Your task to perform on an android device: turn notification dots off Image 0: 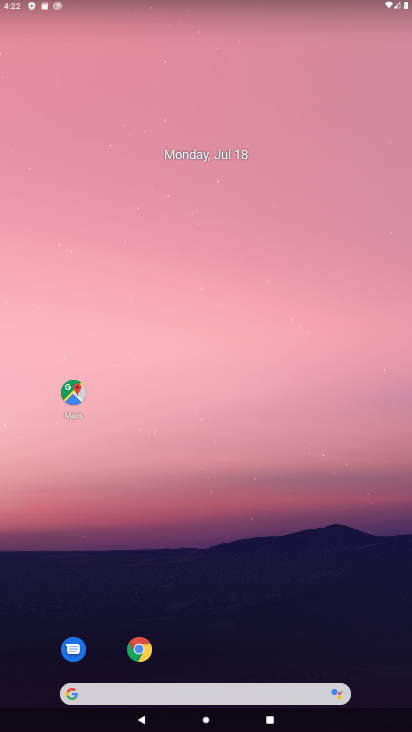
Step 0: drag from (231, 647) to (210, 188)
Your task to perform on an android device: turn notification dots off Image 1: 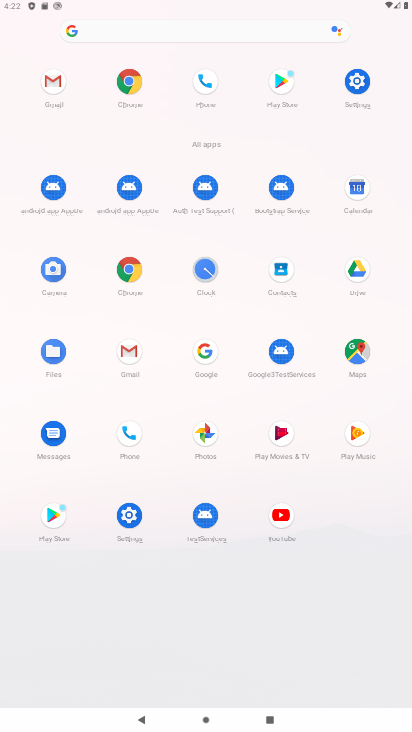
Step 1: click (354, 79)
Your task to perform on an android device: turn notification dots off Image 2: 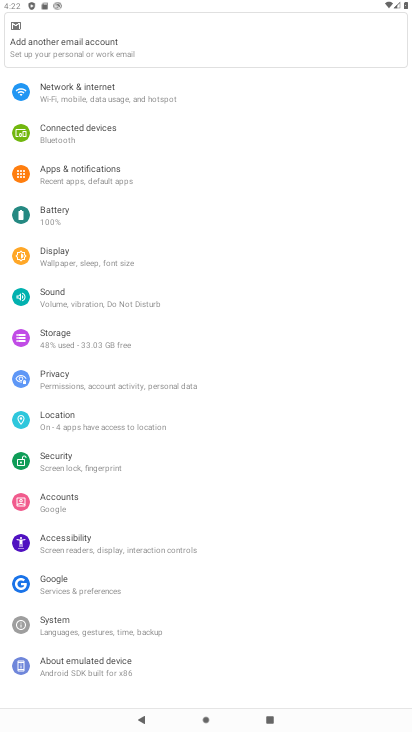
Step 2: click (100, 181)
Your task to perform on an android device: turn notification dots off Image 3: 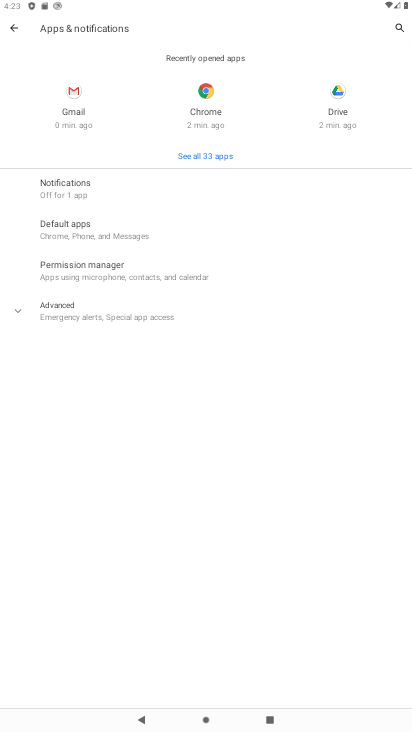
Step 3: click (91, 188)
Your task to perform on an android device: turn notification dots off Image 4: 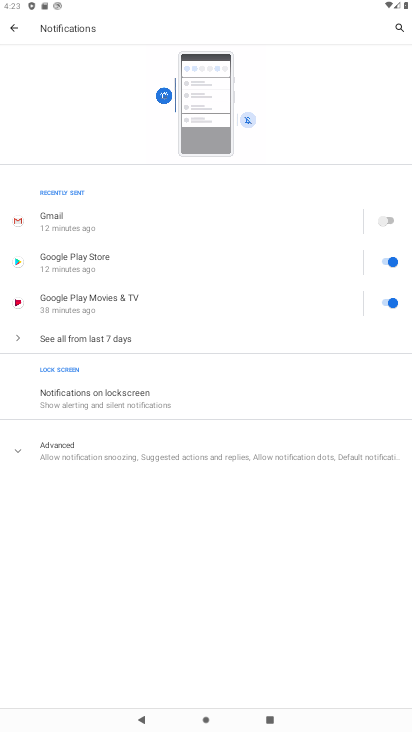
Step 4: click (114, 459)
Your task to perform on an android device: turn notification dots off Image 5: 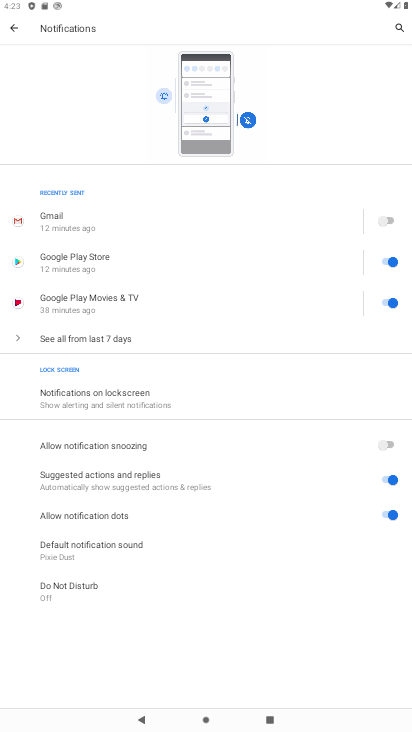
Step 5: click (378, 515)
Your task to perform on an android device: turn notification dots off Image 6: 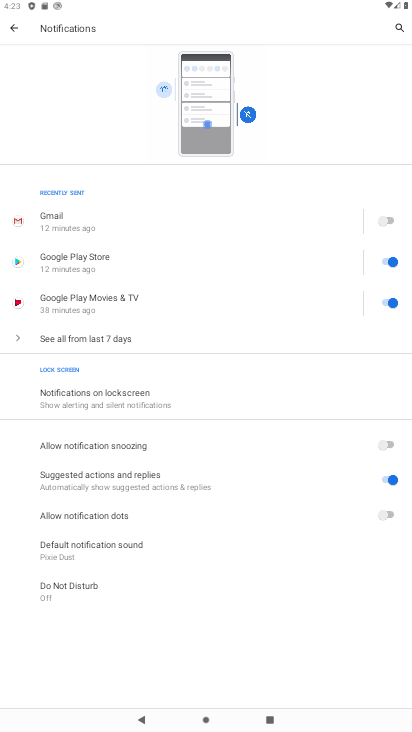
Step 6: task complete